Your task to perform on an android device: When is my next meeting? Image 0: 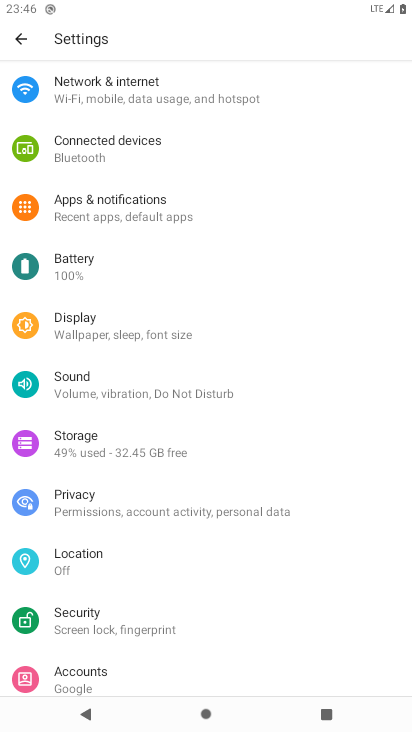
Step 0: press home button
Your task to perform on an android device: When is my next meeting? Image 1: 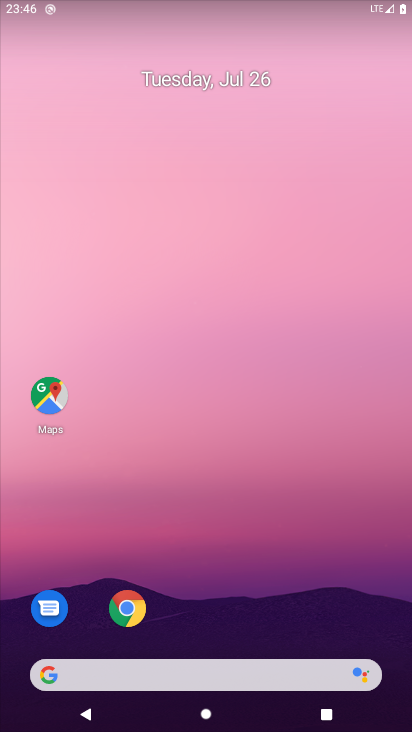
Step 1: drag from (277, 581) to (349, 7)
Your task to perform on an android device: When is my next meeting? Image 2: 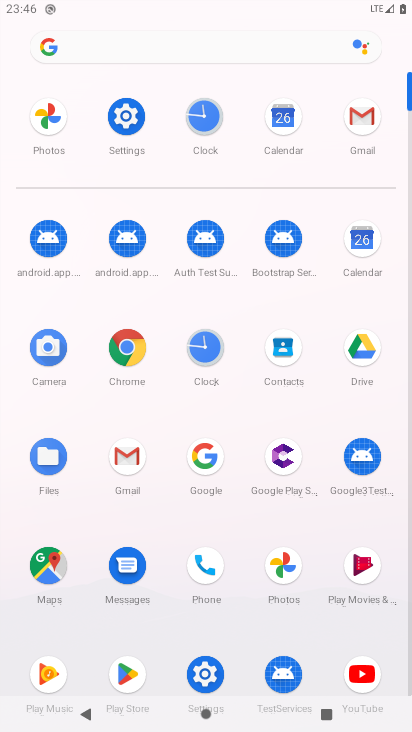
Step 2: click (361, 251)
Your task to perform on an android device: When is my next meeting? Image 3: 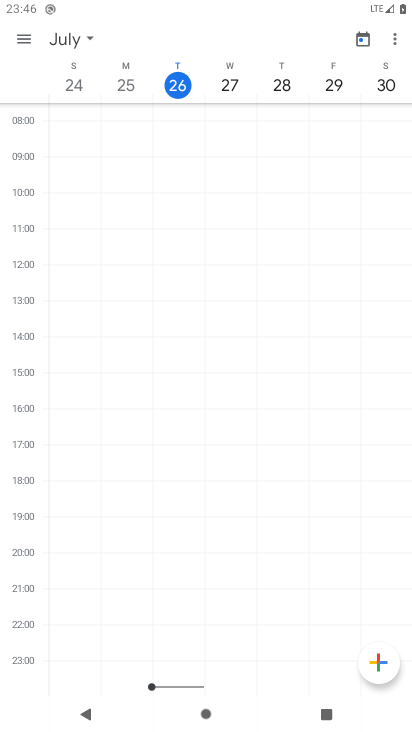
Step 3: drag from (352, 89) to (87, 72)
Your task to perform on an android device: When is my next meeting? Image 4: 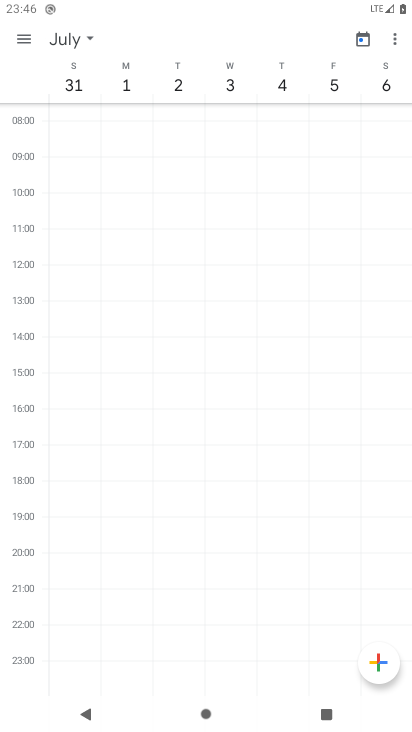
Step 4: drag from (194, 82) to (405, 90)
Your task to perform on an android device: When is my next meeting? Image 5: 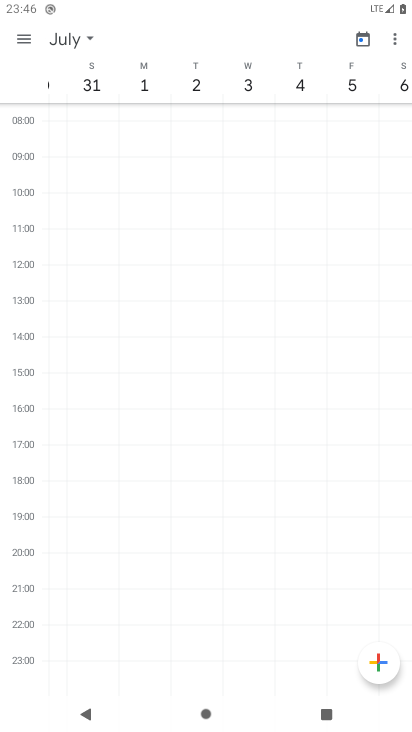
Step 5: drag from (345, 90) to (83, 65)
Your task to perform on an android device: When is my next meeting? Image 6: 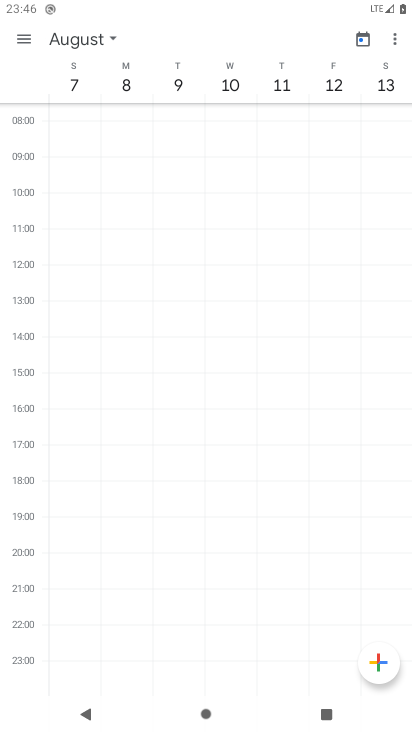
Step 6: click (25, 39)
Your task to perform on an android device: When is my next meeting? Image 7: 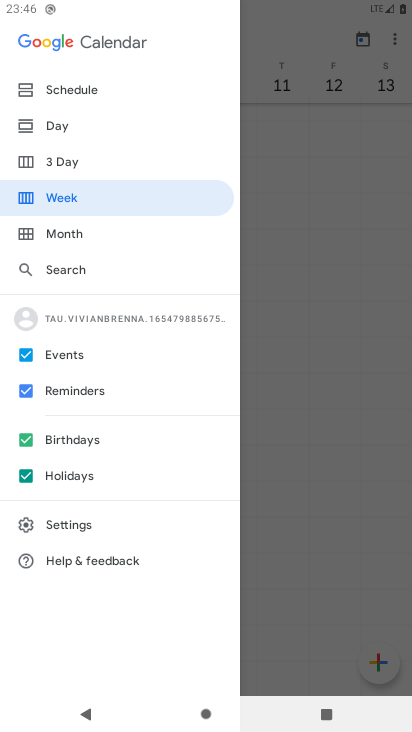
Step 7: click (58, 230)
Your task to perform on an android device: When is my next meeting? Image 8: 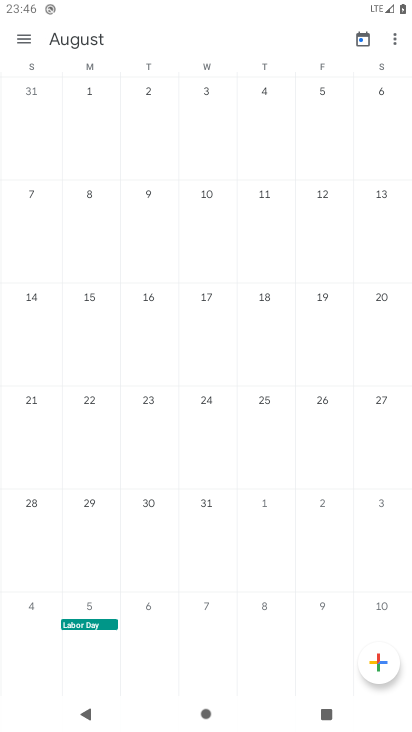
Step 8: drag from (64, 115) to (401, 128)
Your task to perform on an android device: When is my next meeting? Image 9: 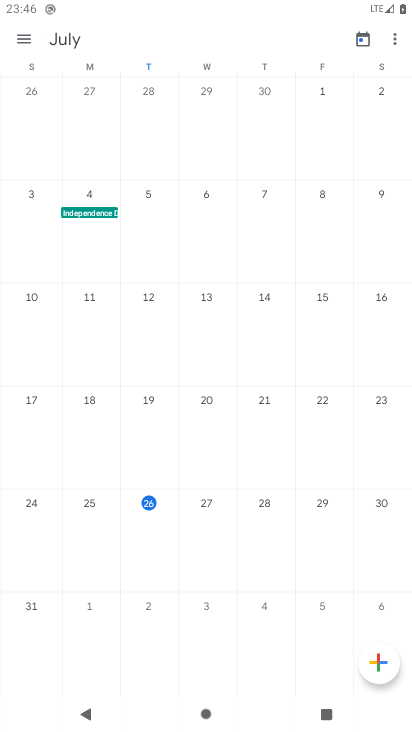
Step 9: click (19, 32)
Your task to perform on an android device: When is my next meeting? Image 10: 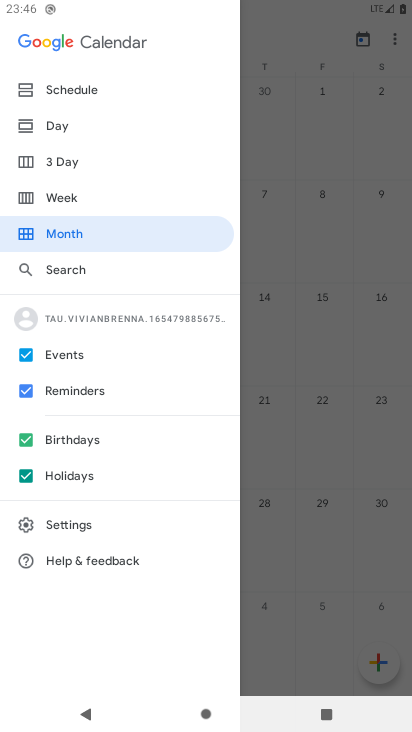
Step 10: click (67, 119)
Your task to perform on an android device: When is my next meeting? Image 11: 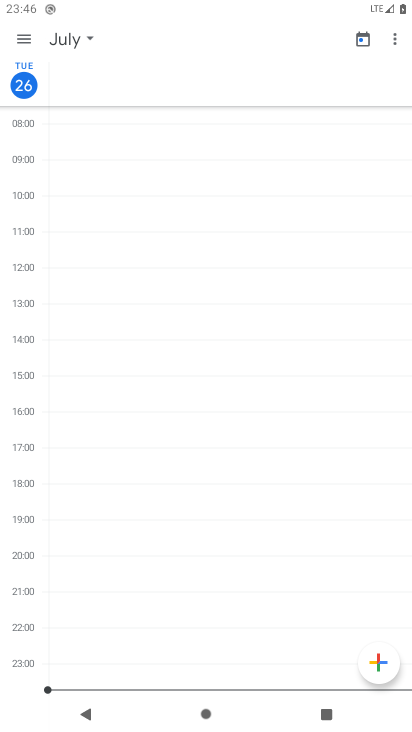
Step 11: click (18, 35)
Your task to perform on an android device: When is my next meeting? Image 12: 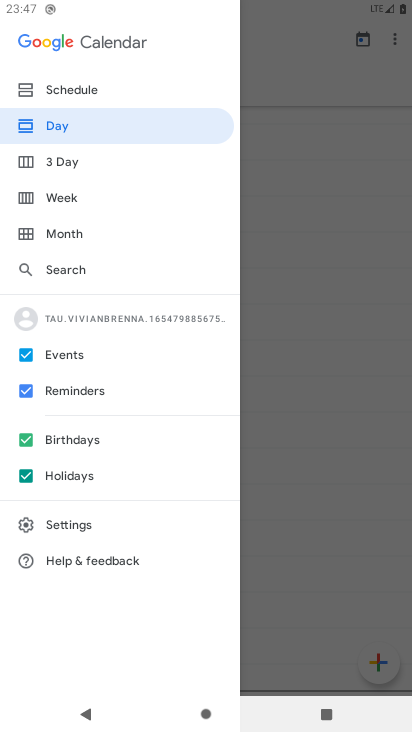
Step 12: task complete